Your task to perform on an android device: turn on airplane mode Image 0: 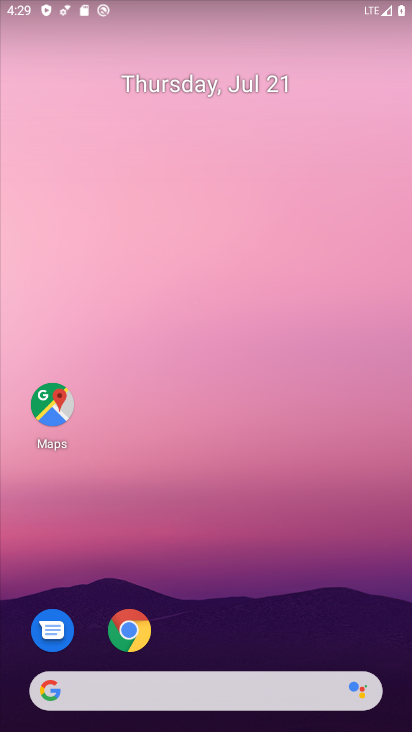
Step 0: drag from (344, 624) to (181, 56)
Your task to perform on an android device: turn on airplane mode Image 1: 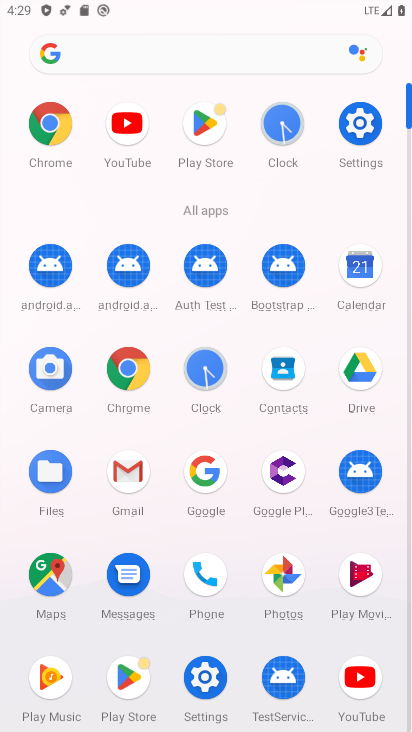
Step 1: click (362, 127)
Your task to perform on an android device: turn on airplane mode Image 2: 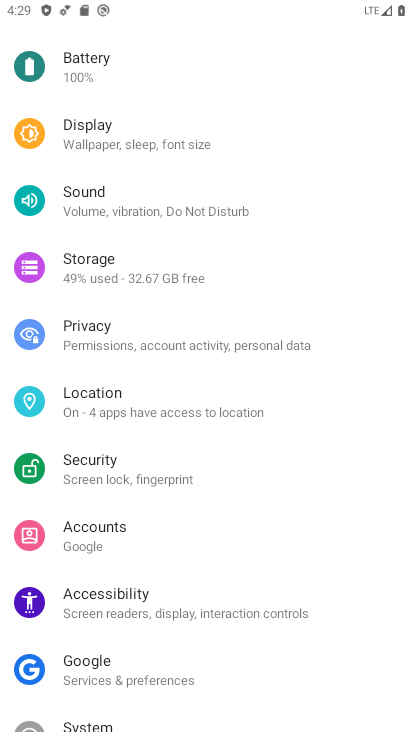
Step 2: drag from (213, 111) to (220, 498)
Your task to perform on an android device: turn on airplane mode Image 3: 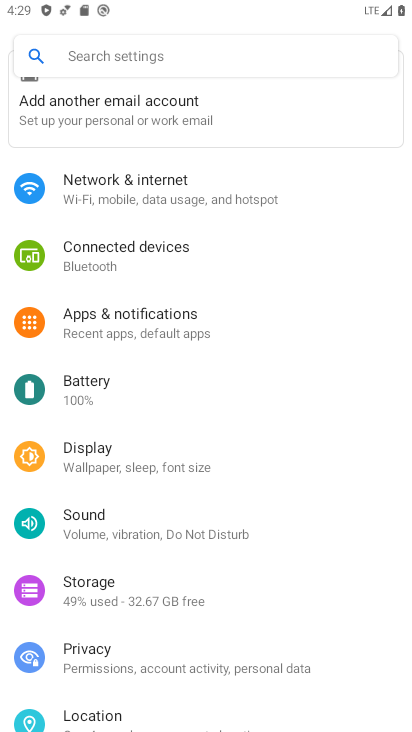
Step 3: click (193, 190)
Your task to perform on an android device: turn on airplane mode Image 4: 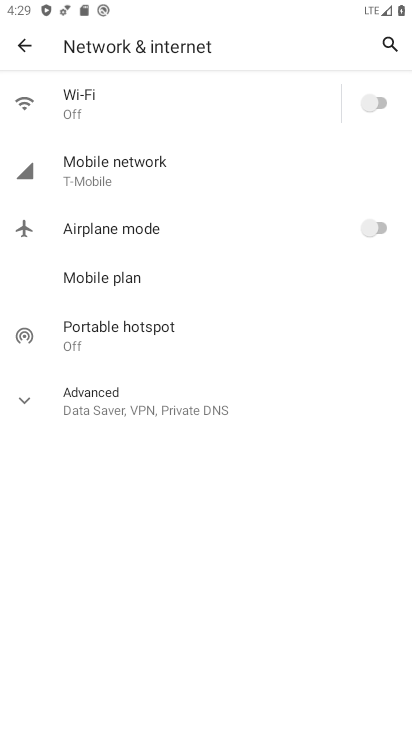
Step 4: click (371, 228)
Your task to perform on an android device: turn on airplane mode Image 5: 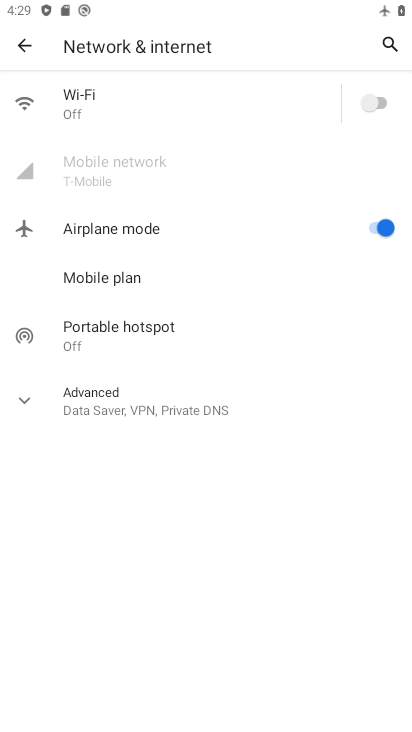
Step 5: task complete